Your task to perform on an android device: Go to location settings Image 0: 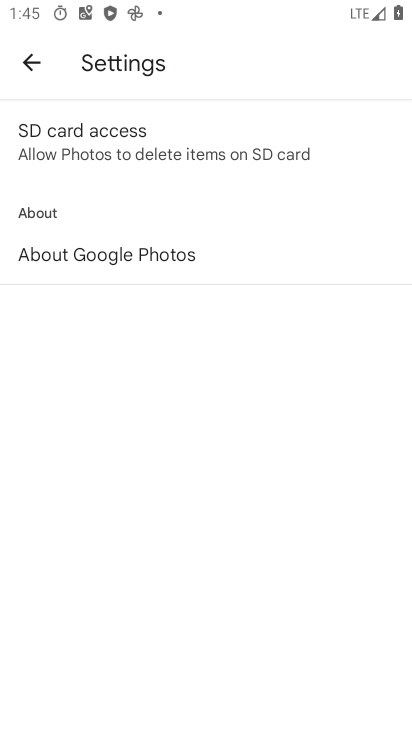
Step 0: press home button
Your task to perform on an android device: Go to location settings Image 1: 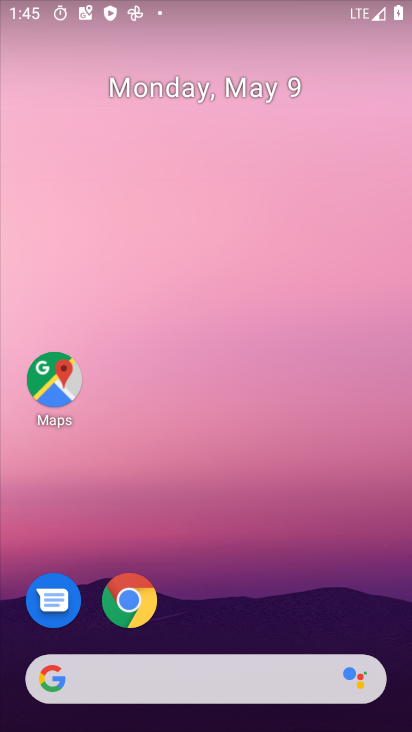
Step 1: drag from (272, 626) to (268, 242)
Your task to perform on an android device: Go to location settings Image 2: 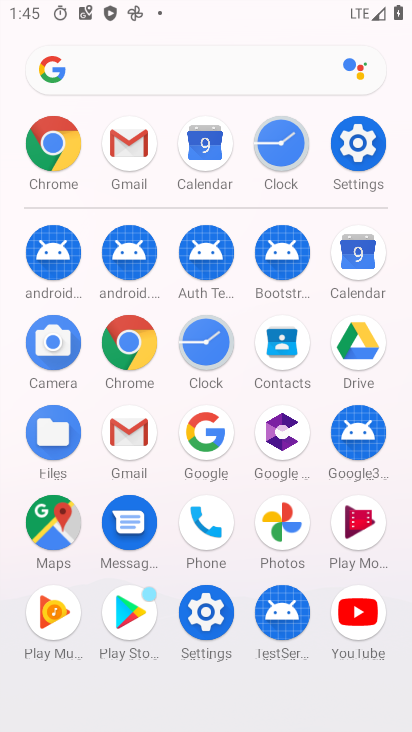
Step 2: drag from (209, 606) to (209, 229)
Your task to perform on an android device: Go to location settings Image 3: 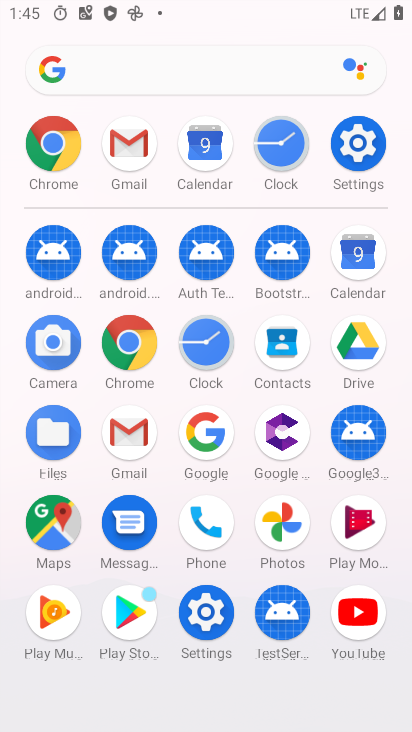
Step 3: click (364, 162)
Your task to perform on an android device: Go to location settings Image 4: 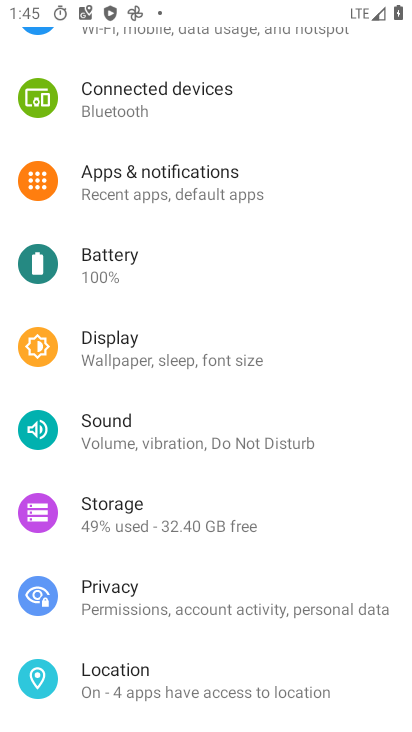
Step 4: click (188, 678)
Your task to perform on an android device: Go to location settings Image 5: 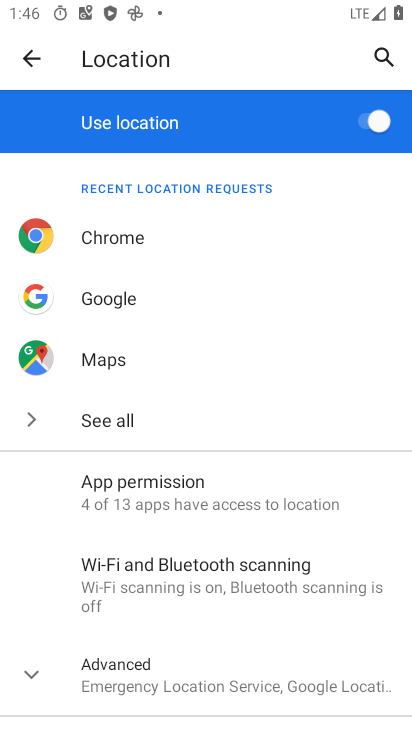
Step 5: task complete